Your task to perform on an android device: Search for Mexican restaurants on Maps Image 0: 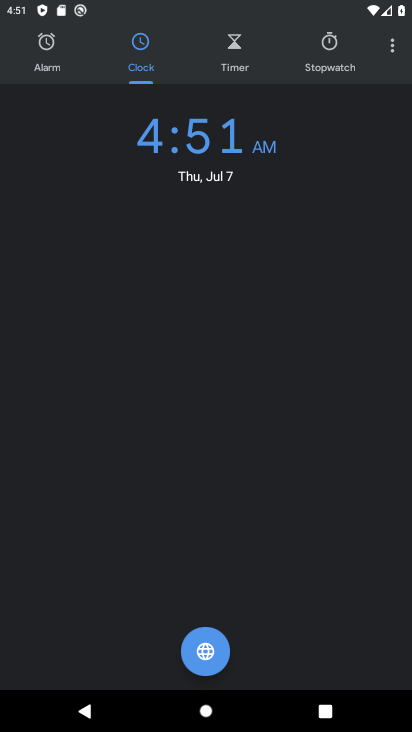
Step 0: press back button
Your task to perform on an android device: Search for Mexican restaurants on Maps Image 1: 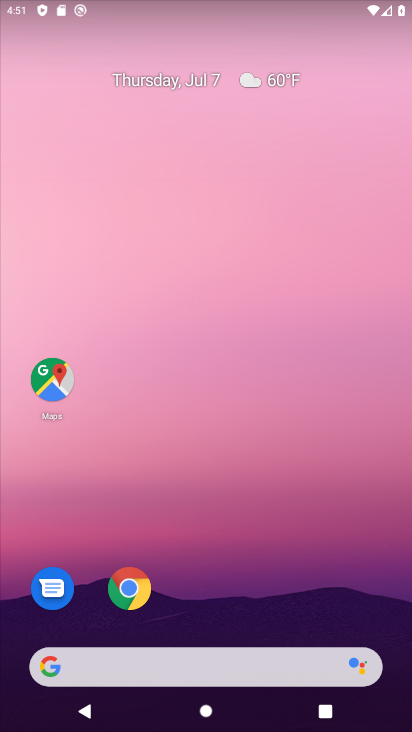
Step 1: click (42, 375)
Your task to perform on an android device: Search for Mexican restaurants on Maps Image 2: 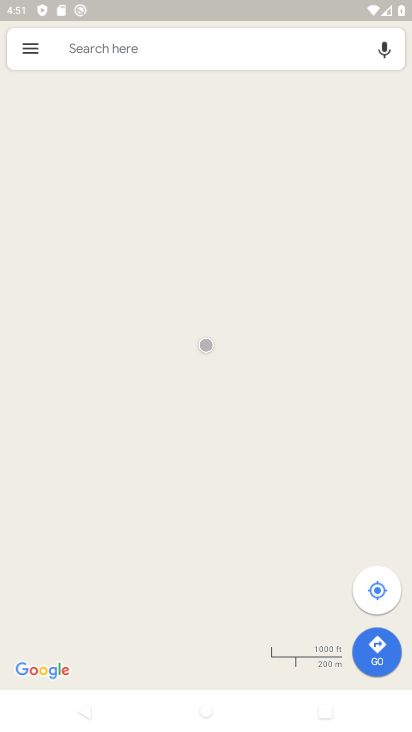
Step 2: click (211, 52)
Your task to perform on an android device: Search for Mexican restaurants on Maps Image 3: 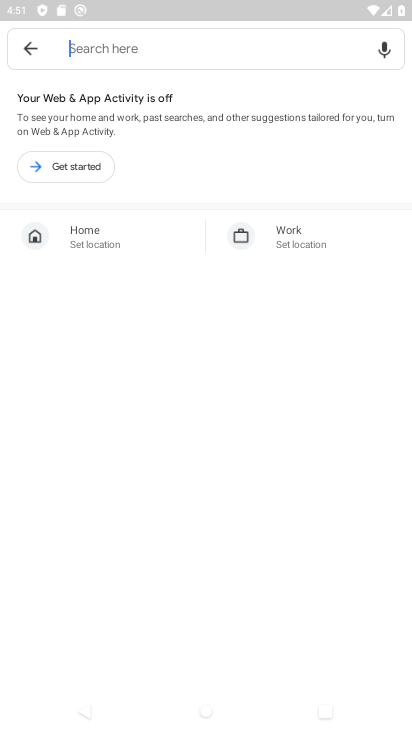
Step 3: click (106, 41)
Your task to perform on an android device: Search for Mexican restaurants on Maps Image 4: 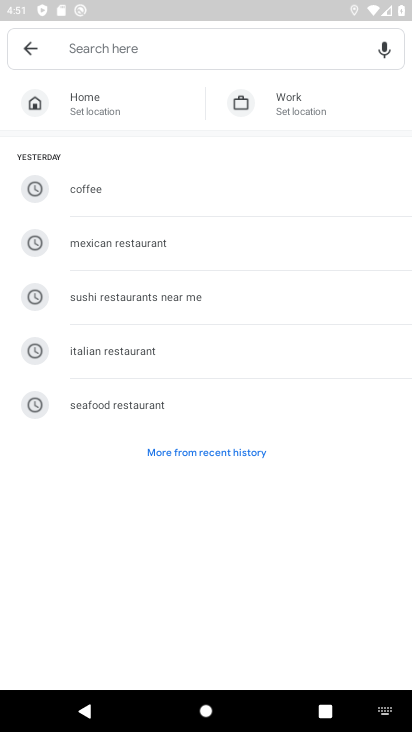
Step 4: type "mexican rest"
Your task to perform on an android device: Search for Mexican restaurants on Maps Image 5: 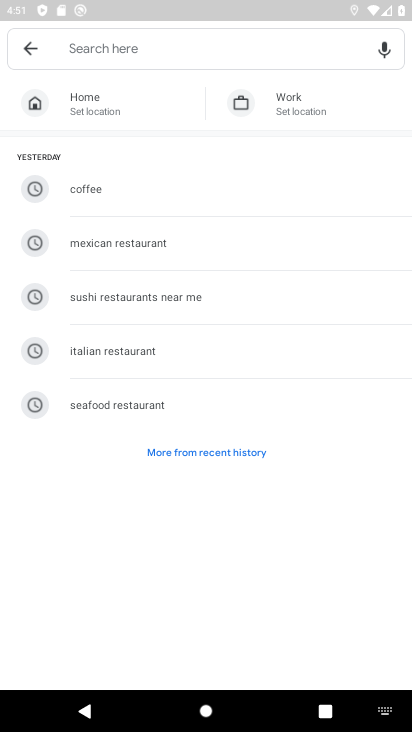
Step 5: click (119, 255)
Your task to perform on an android device: Search for Mexican restaurants on Maps Image 6: 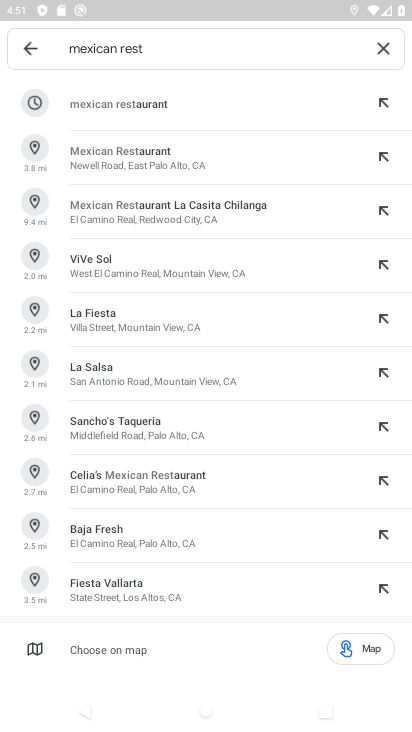
Step 6: click (137, 108)
Your task to perform on an android device: Search for Mexican restaurants on Maps Image 7: 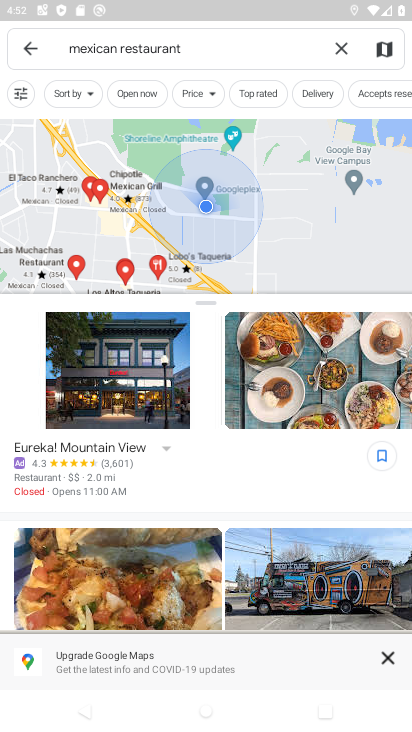
Step 7: task complete